Your task to perform on an android device: add a contact Image 0: 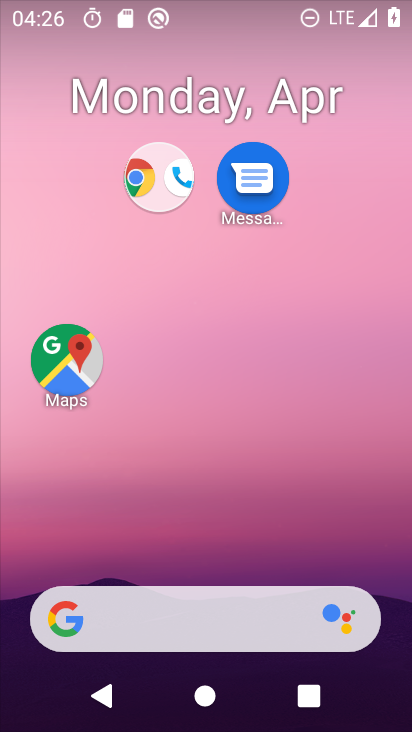
Step 0: drag from (246, 435) to (54, 20)
Your task to perform on an android device: add a contact Image 1: 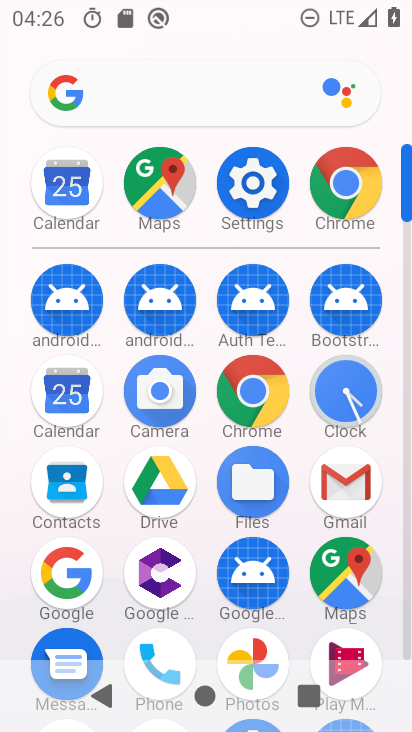
Step 1: click (90, 496)
Your task to perform on an android device: add a contact Image 2: 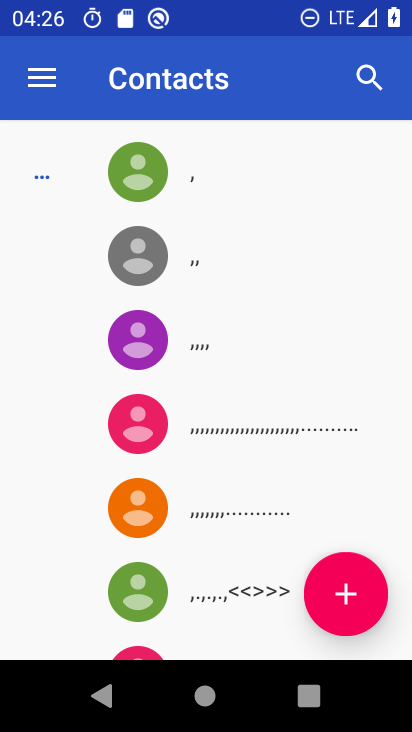
Step 2: click (360, 610)
Your task to perform on an android device: add a contact Image 3: 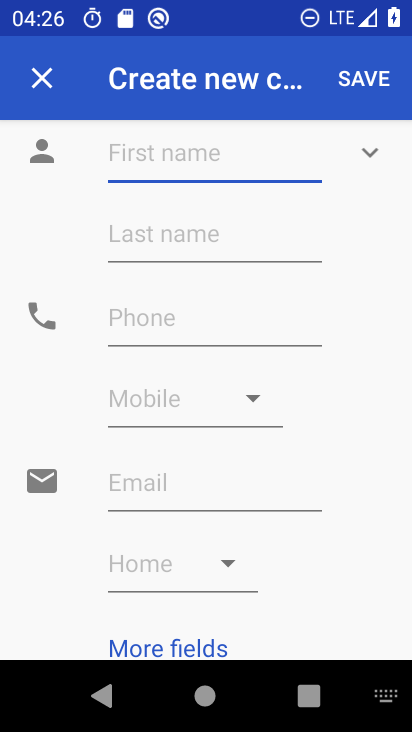
Step 3: type "jhvjbbhhhhh"
Your task to perform on an android device: add a contact Image 4: 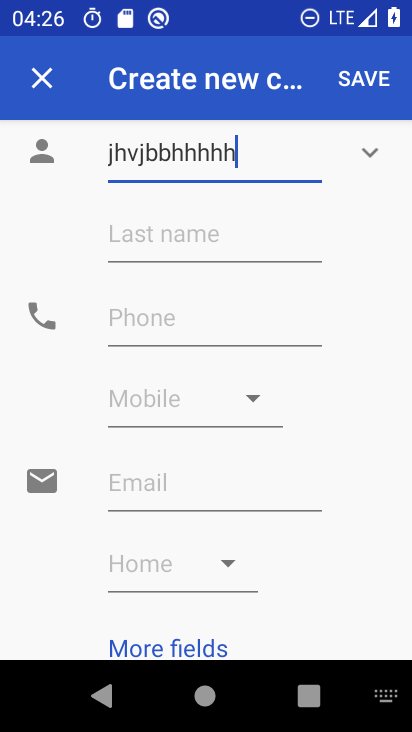
Step 4: click (172, 311)
Your task to perform on an android device: add a contact Image 5: 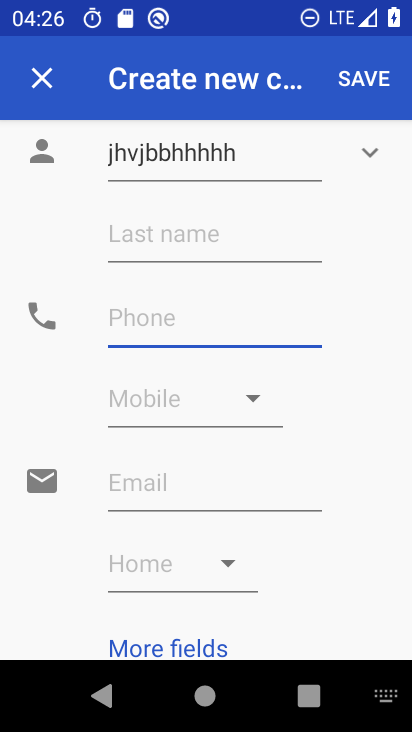
Step 5: type "98787777665"
Your task to perform on an android device: add a contact Image 6: 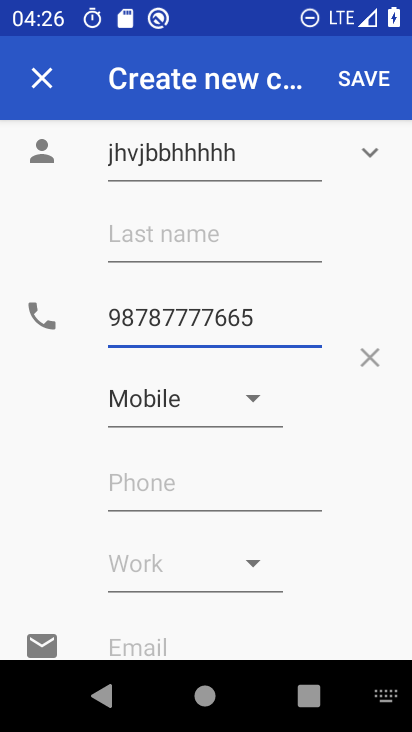
Step 6: click (360, 81)
Your task to perform on an android device: add a contact Image 7: 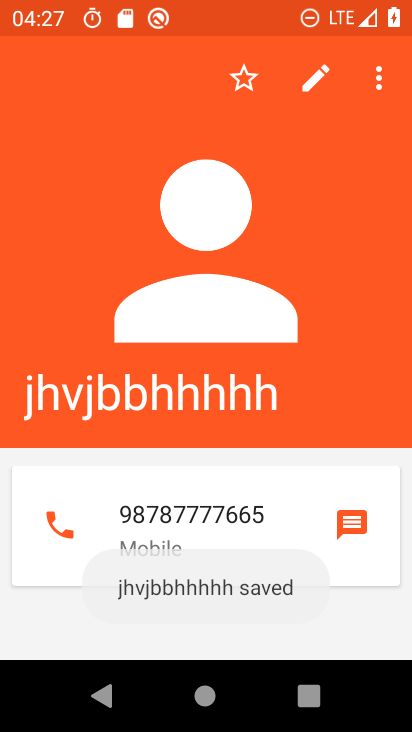
Step 7: task complete